Your task to perform on an android device: check data usage Image 0: 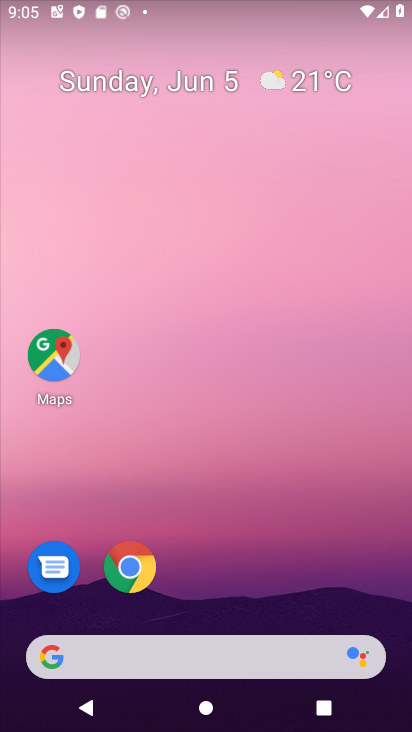
Step 0: drag from (203, 638) to (180, 326)
Your task to perform on an android device: check data usage Image 1: 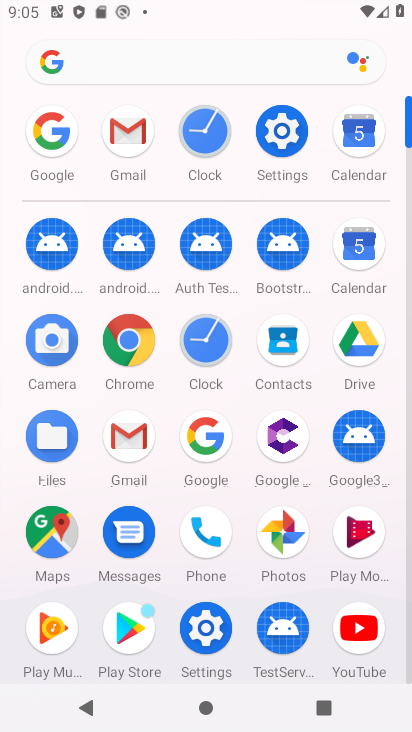
Step 1: click (289, 139)
Your task to perform on an android device: check data usage Image 2: 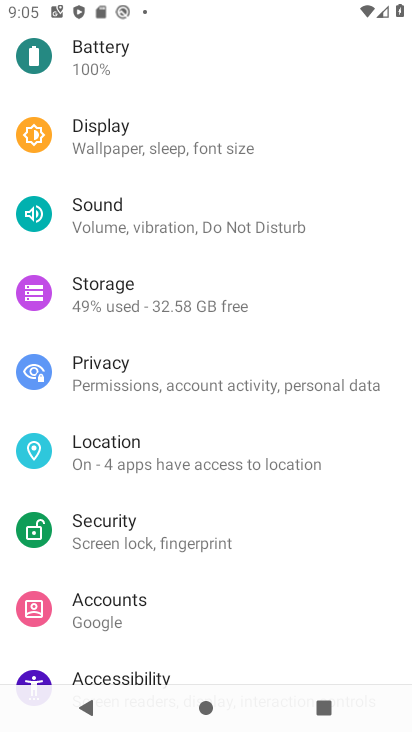
Step 2: drag from (204, 87) to (218, 518)
Your task to perform on an android device: check data usage Image 3: 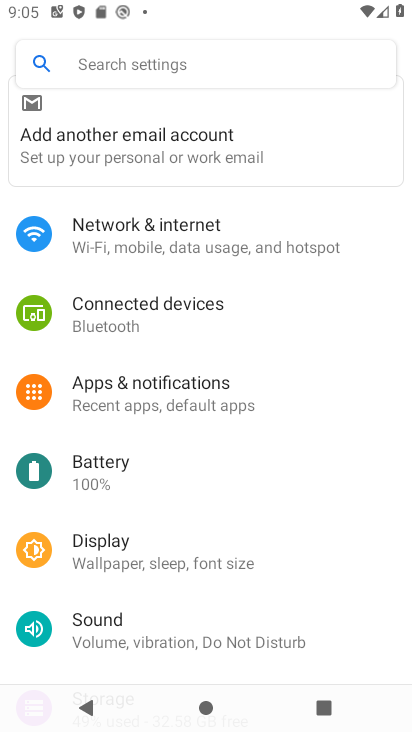
Step 3: click (164, 254)
Your task to perform on an android device: check data usage Image 4: 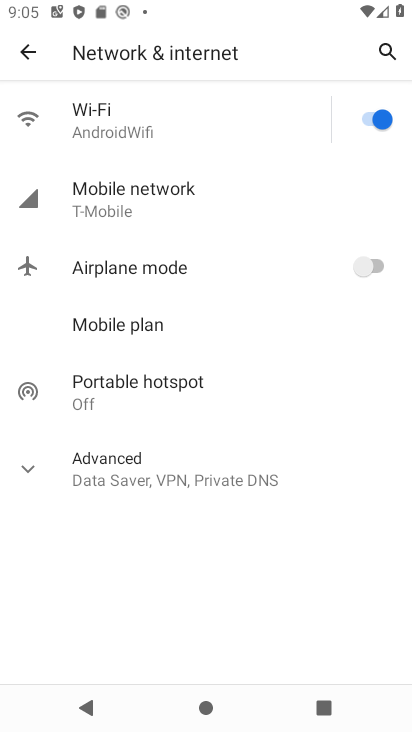
Step 4: click (142, 213)
Your task to perform on an android device: check data usage Image 5: 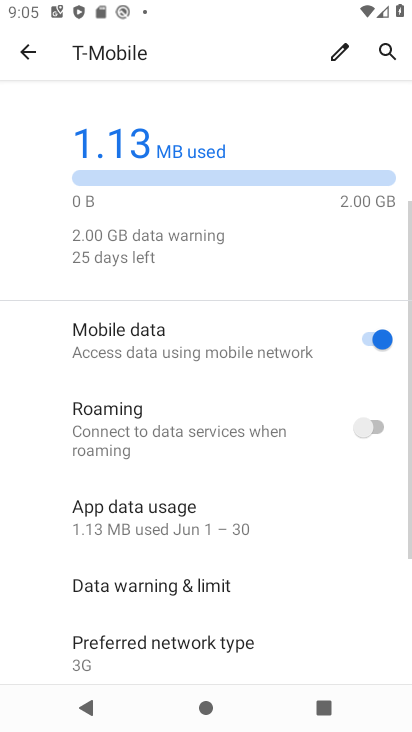
Step 5: task complete